Your task to perform on an android device: Search for Italian restaurants on Maps Image 0: 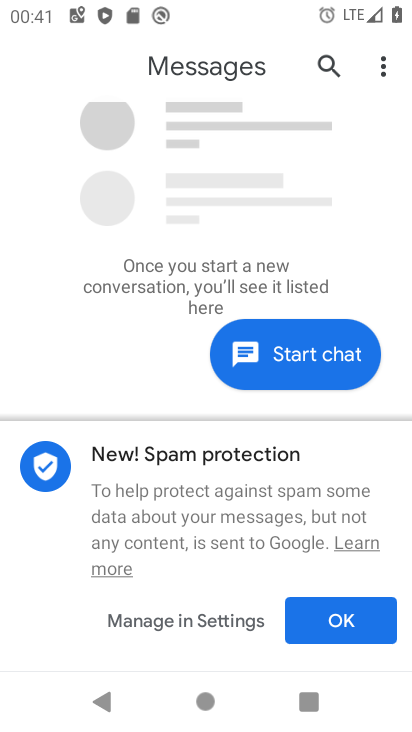
Step 0: press home button
Your task to perform on an android device: Search for Italian restaurants on Maps Image 1: 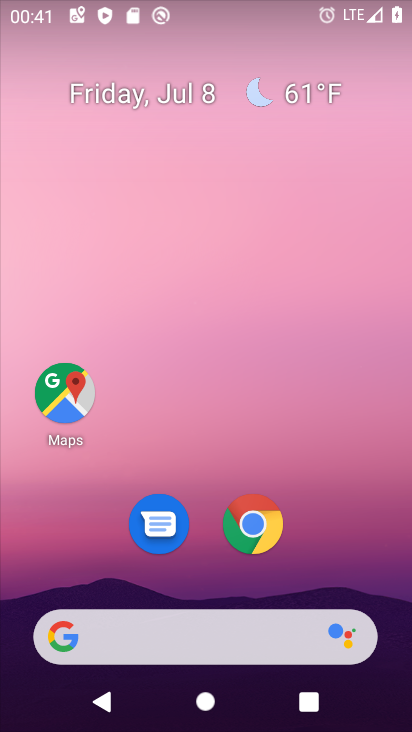
Step 1: click (67, 391)
Your task to perform on an android device: Search for Italian restaurants on Maps Image 2: 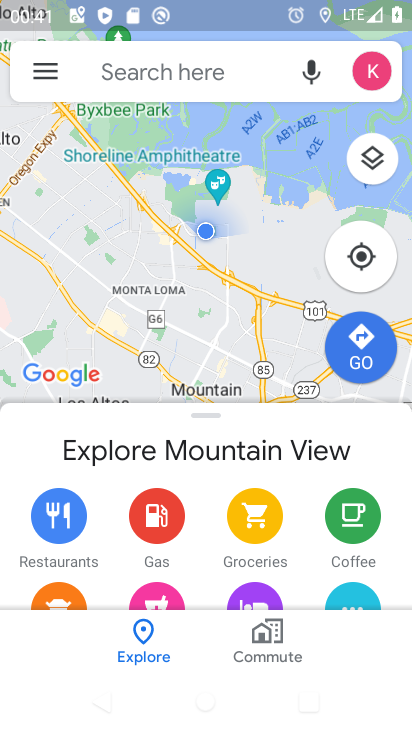
Step 2: click (170, 52)
Your task to perform on an android device: Search for Italian restaurants on Maps Image 3: 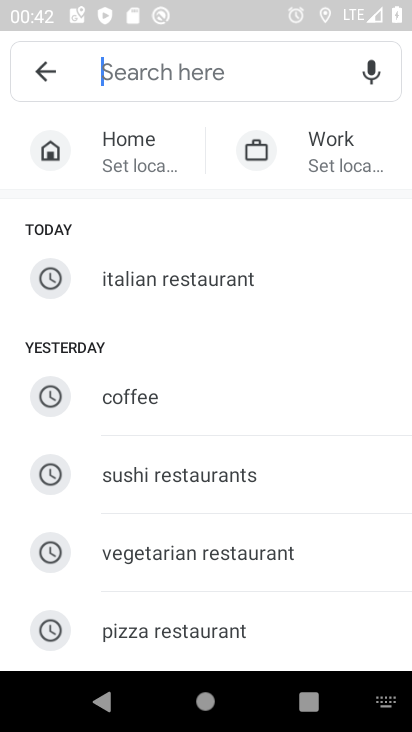
Step 3: click (191, 271)
Your task to perform on an android device: Search for Italian restaurants on Maps Image 4: 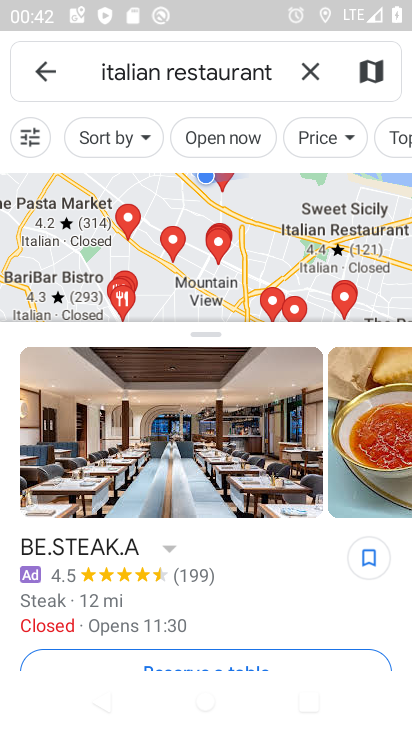
Step 4: task complete